Your task to perform on an android device: add a contact Image 0: 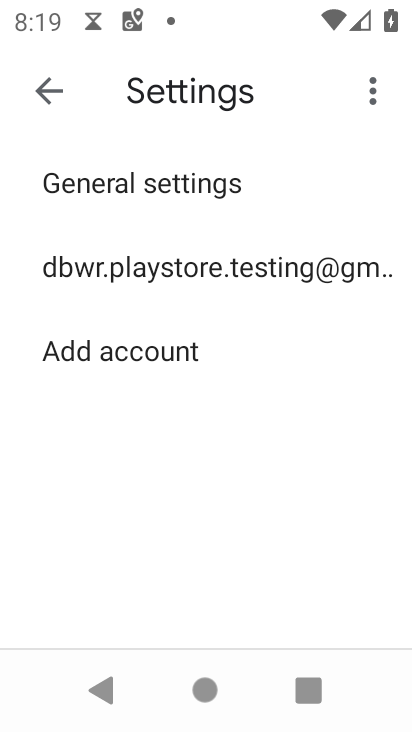
Step 0: press home button
Your task to perform on an android device: add a contact Image 1: 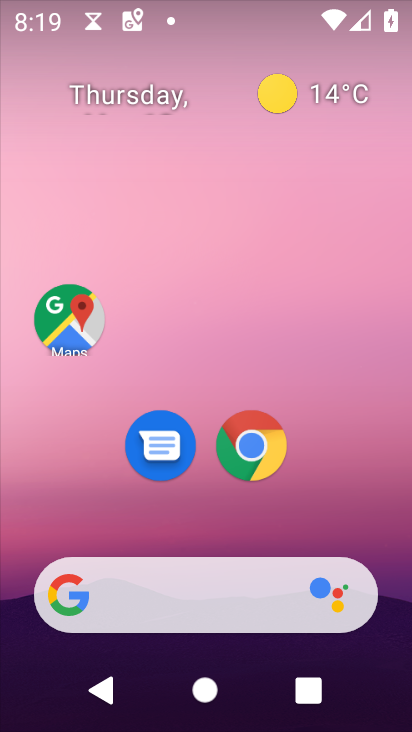
Step 1: drag from (224, 725) to (227, 329)
Your task to perform on an android device: add a contact Image 2: 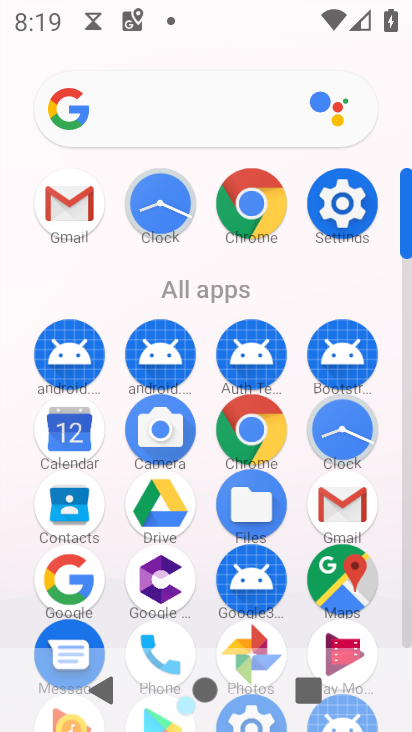
Step 2: click (70, 507)
Your task to perform on an android device: add a contact Image 3: 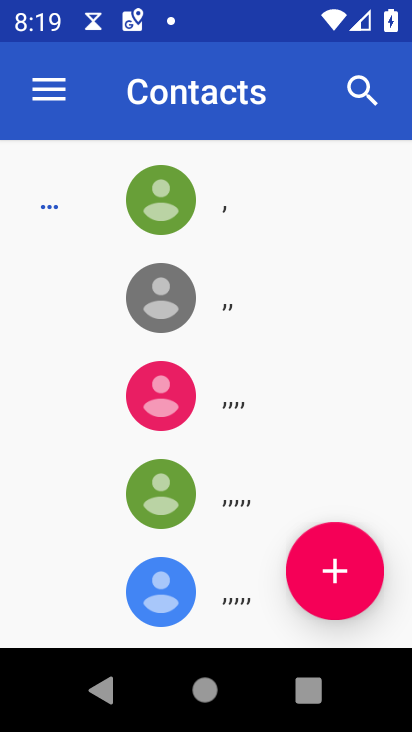
Step 3: click (342, 578)
Your task to perform on an android device: add a contact Image 4: 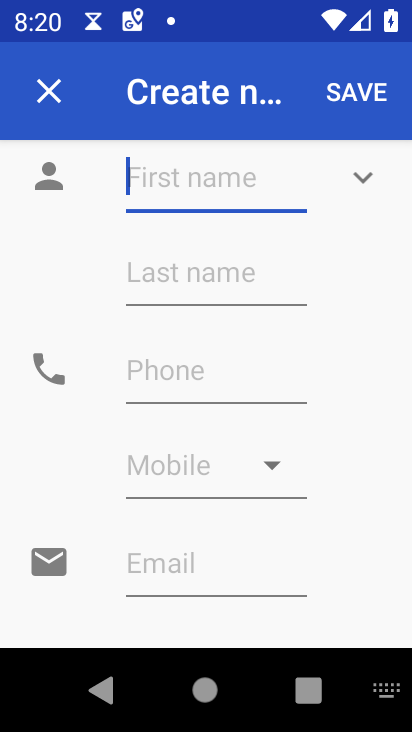
Step 4: type "zipper"
Your task to perform on an android device: add a contact Image 5: 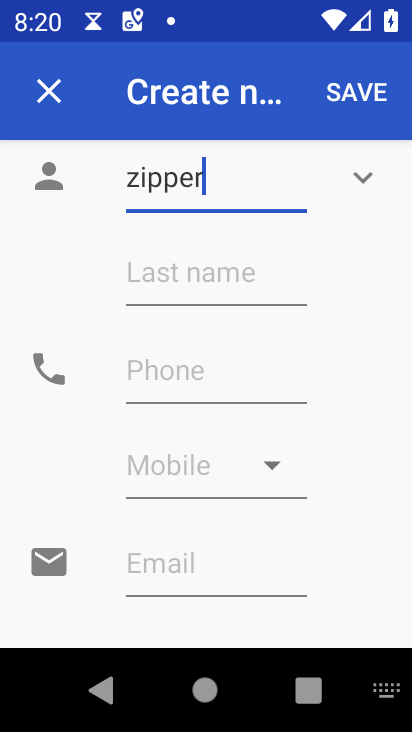
Step 5: click (190, 374)
Your task to perform on an android device: add a contact Image 6: 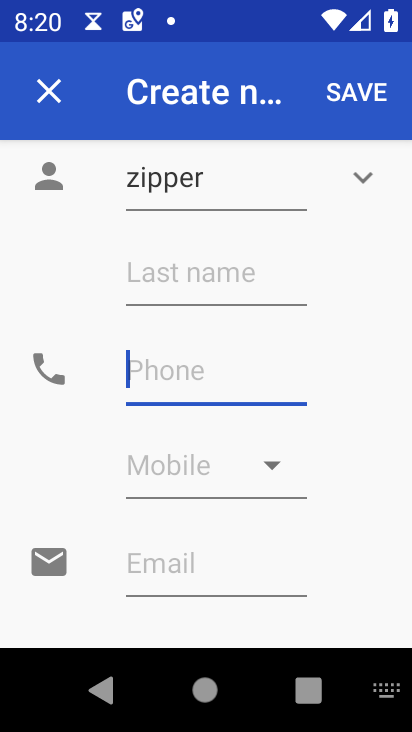
Step 6: type "89876"
Your task to perform on an android device: add a contact Image 7: 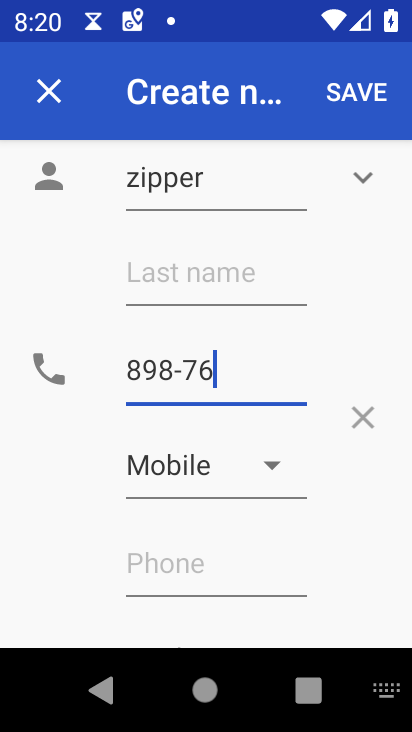
Step 7: click (344, 90)
Your task to perform on an android device: add a contact Image 8: 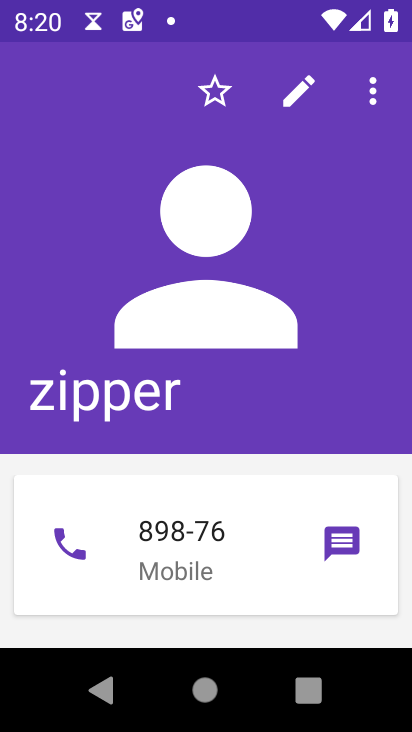
Step 8: task complete